Your task to perform on an android device: Open Google Chrome and click the shortcut for Amazon.com Image 0: 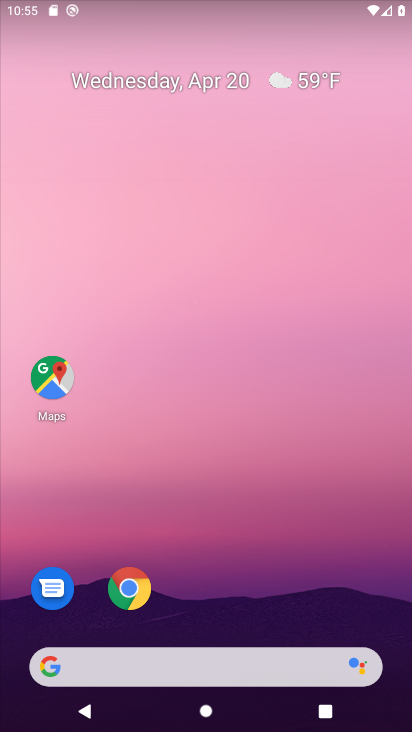
Step 0: click (131, 589)
Your task to perform on an android device: Open Google Chrome and click the shortcut for Amazon.com Image 1: 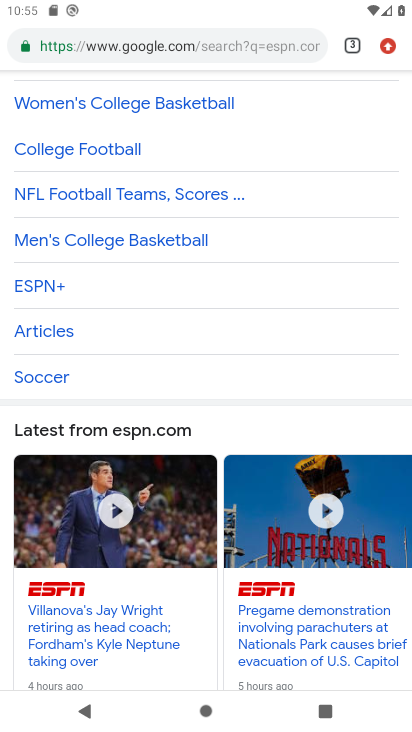
Step 1: click (392, 47)
Your task to perform on an android device: Open Google Chrome and click the shortcut for Amazon.com Image 2: 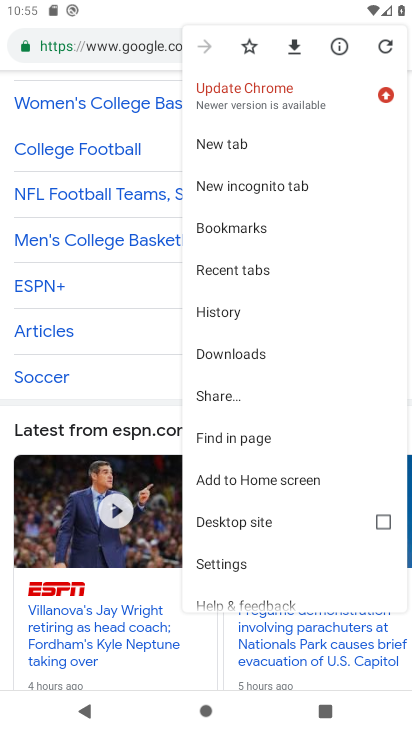
Step 2: click (242, 143)
Your task to perform on an android device: Open Google Chrome and click the shortcut for Amazon.com Image 3: 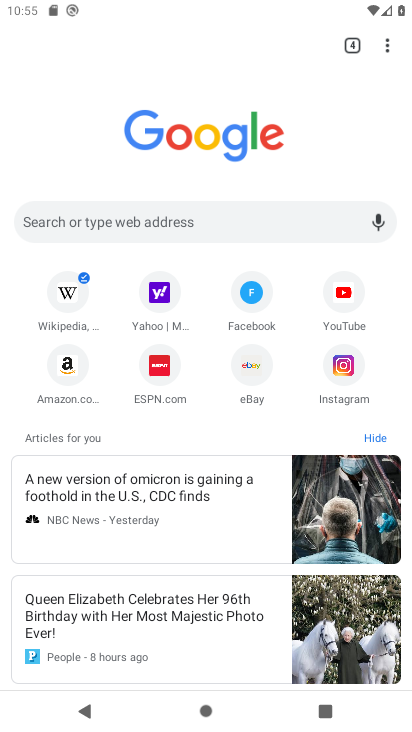
Step 3: click (67, 360)
Your task to perform on an android device: Open Google Chrome and click the shortcut for Amazon.com Image 4: 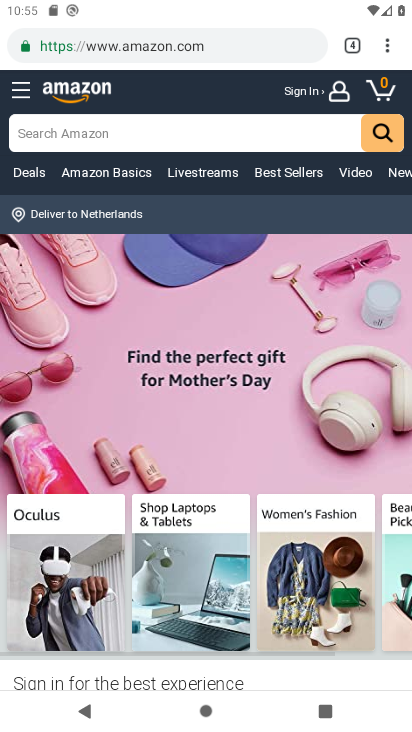
Step 4: task complete